Your task to perform on an android device: Open internet settings Image 0: 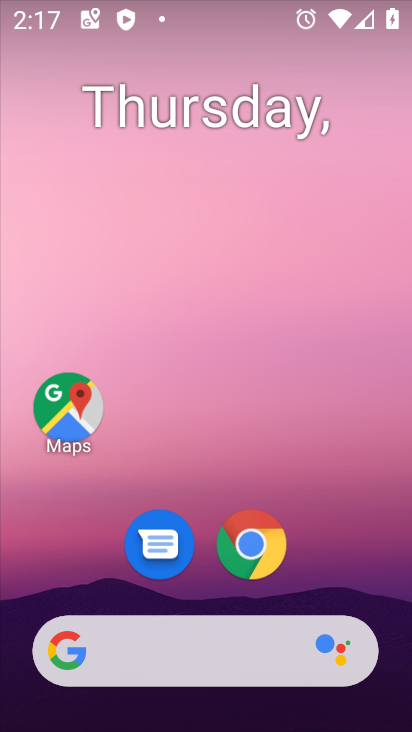
Step 0: drag from (309, 398) to (262, 115)
Your task to perform on an android device: Open internet settings Image 1: 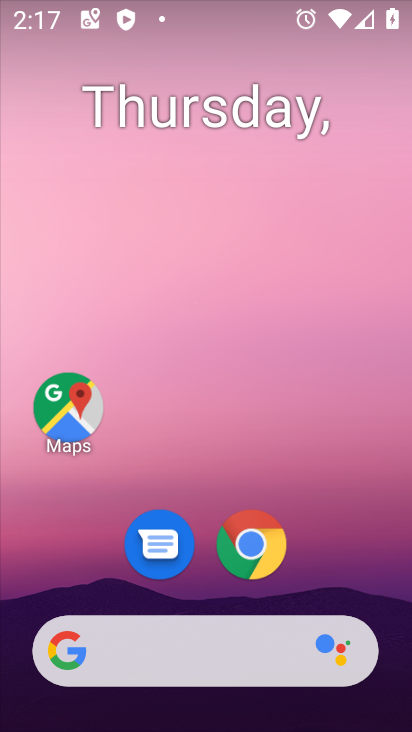
Step 1: drag from (316, 571) to (254, 26)
Your task to perform on an android device: Open internet settings Image 2: 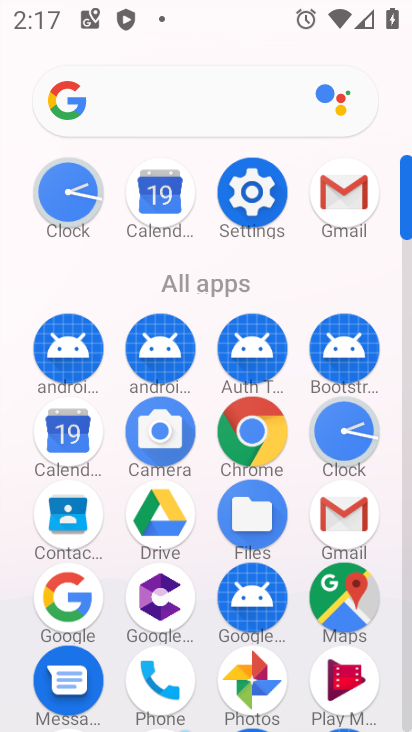
Step 2: click (244, 217)
Your task to perform on an android device: Open internet settings Image 3: 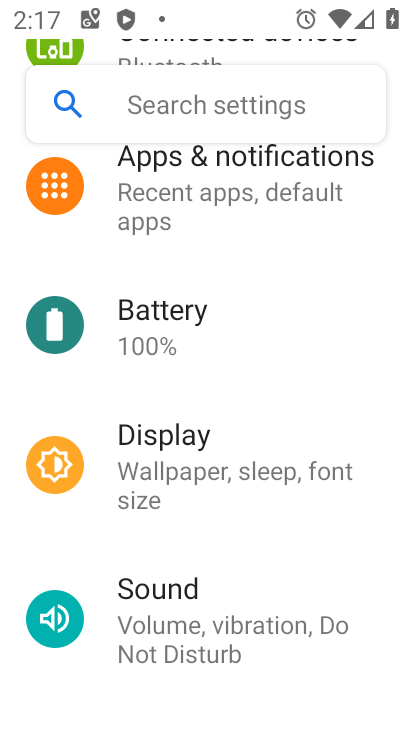
Step 3: drag from (299, 252) to (309, 567)
Your task to perform on an android device: Open internet settings Image 4: 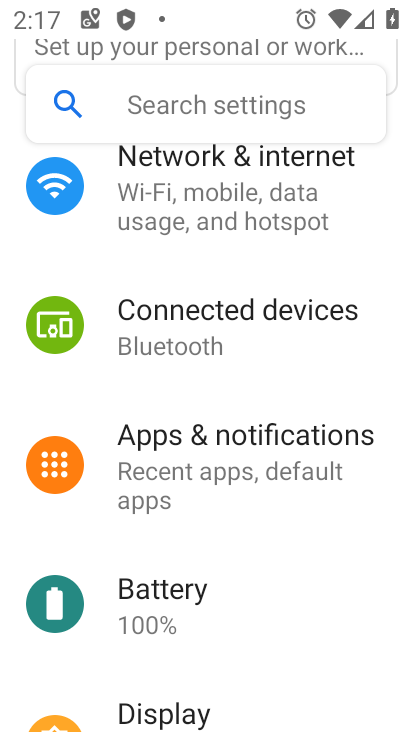
Step 4: click (303, 203)
Your task to perform on an android device: Open internet settings Image 5: 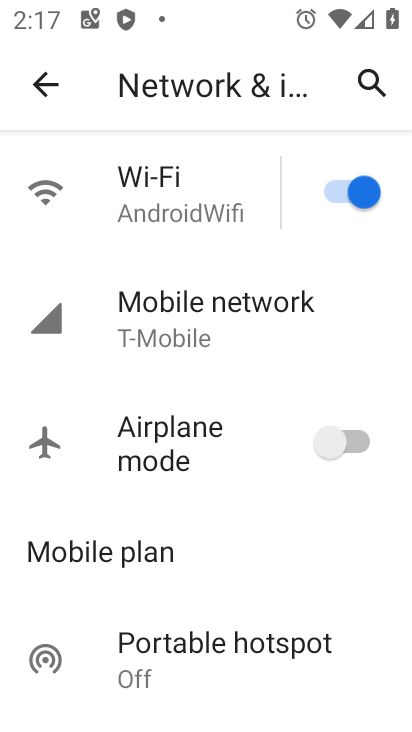
Step 5: task complete